Your task to perform on an android device: check storage Image 0: 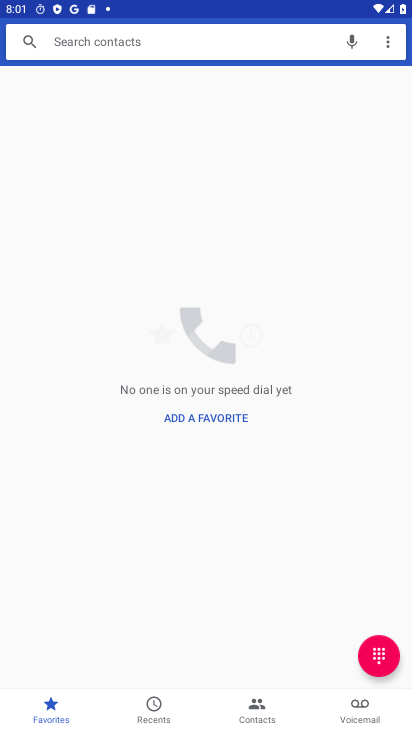
Step 0: press home button
Your task to perform on an android device: check storage Image 1: 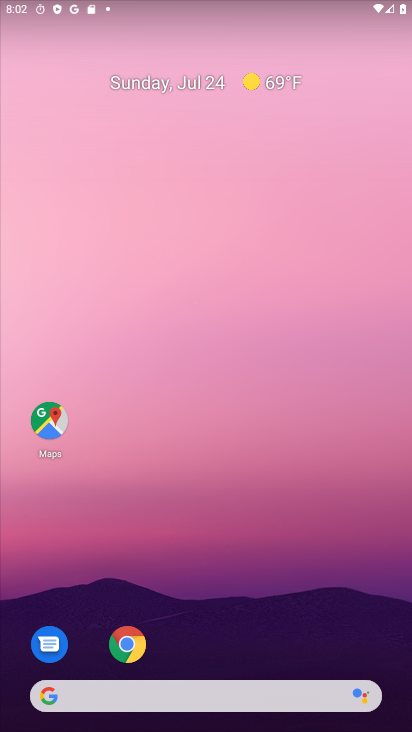
Step 1: drag from (210, 674) to (206, 332)
Your task to perform on an android device: check storage Image 2: 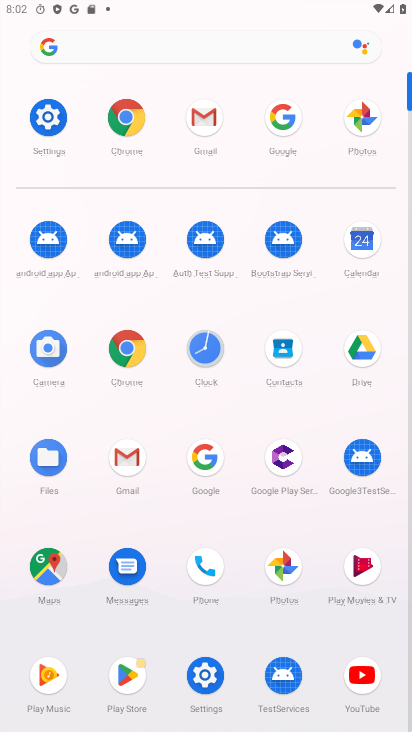
Step 2: click (206, 680)
Your task to perform on an android device: check storage Image 3: 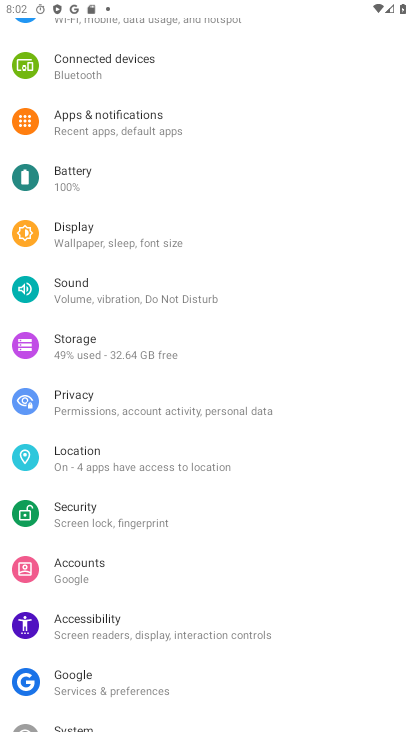
Step 3: click (87, 328)
Your task to perform on an android device: check storage Image 4: 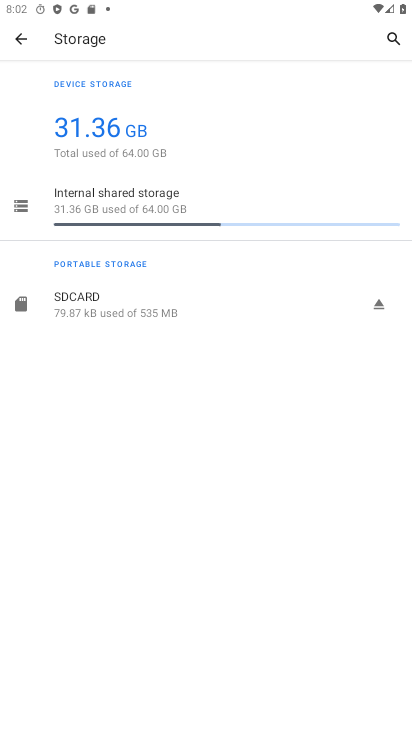
Step 4: task complete